Your task to perform on an android device: Go to sound settings Image 0: 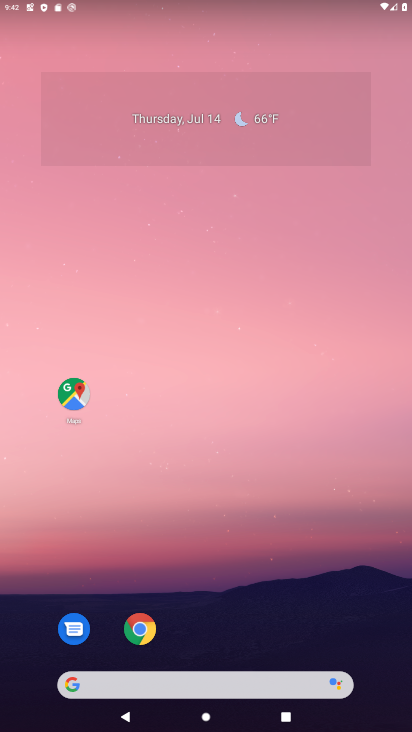
Step 0: press home button
Your task to perform on an android device: Go to sound settings Image 1: 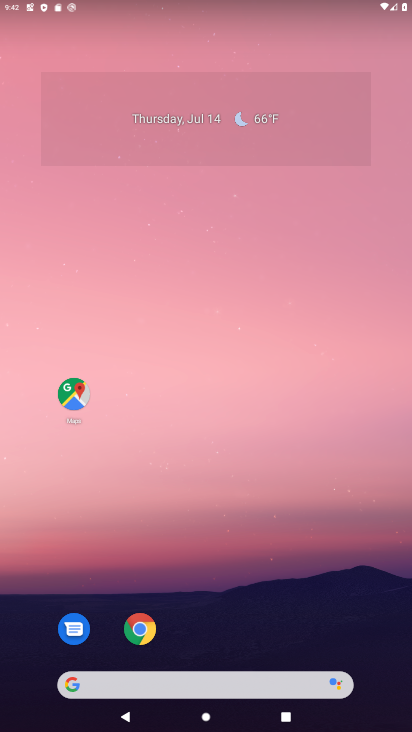
Step 1: drag from (268, 297) to (288, 39)
Your task to perform on an android device: Go to sound settings Image 2: 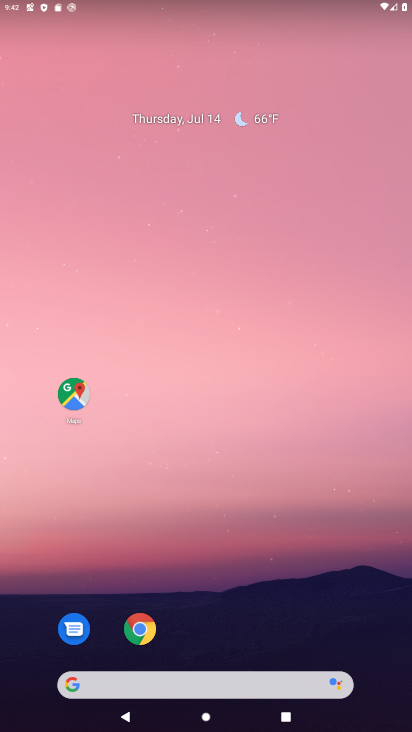
Step 2: drag from (236, 482) to (325, 0)
Your task to perform on an android device: Go to sound settings Image 3: 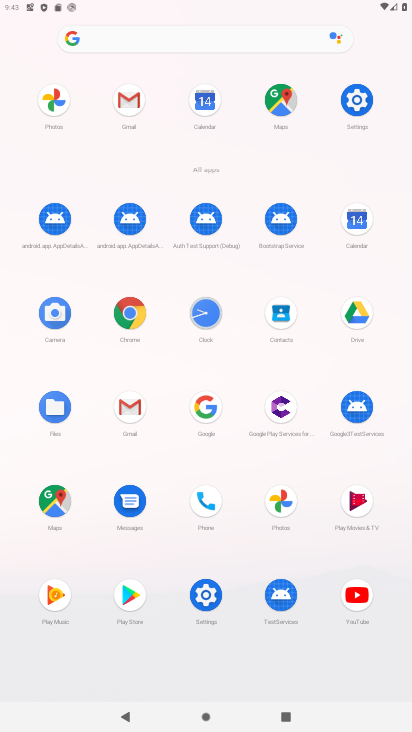
Step 3: click (363, 95)
Your task to perform on an android device: Go to sound settings Image 4: 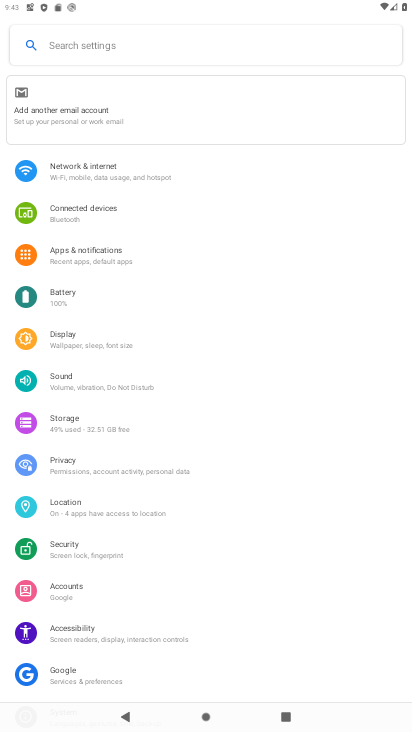
Step 4: click (105, 376)
Your task to perform on an android device: Go to sound settings Image 5: 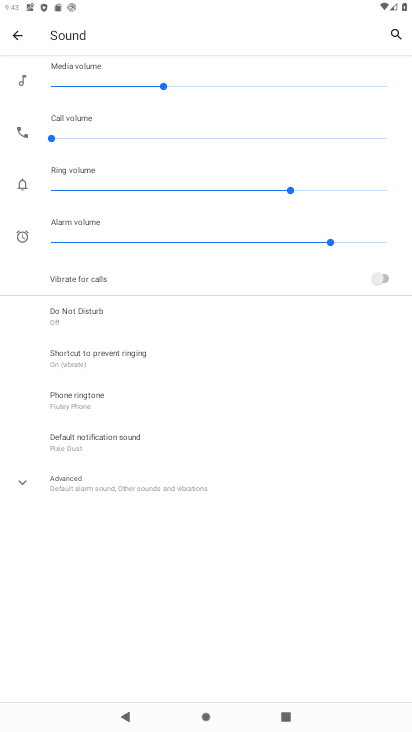
Step 5: task complete